Your task to perform on an android device: turn vacation reply on in the gmail app Image 0: 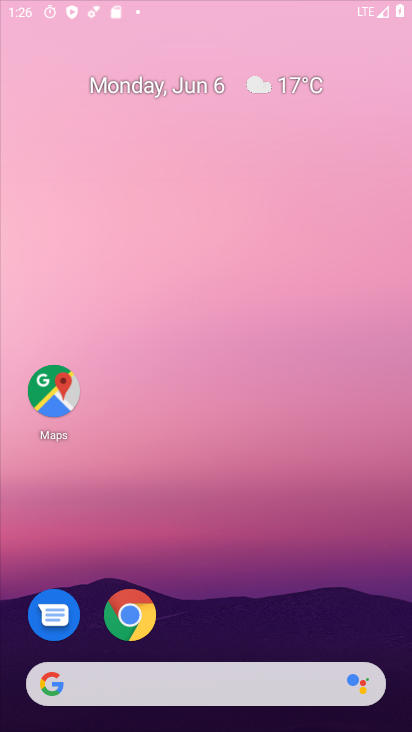
Step 0: drag from (199, 606) to (258, 201)
Your task to perform on an android device: turn vacation reply on in the gmail app Image 1: 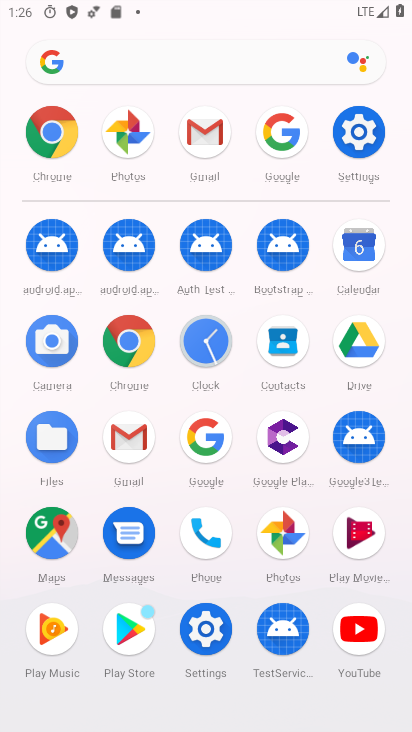
Step 1: click (120, 441)
Your task to perform on an android device: turn vacation reply on in the gmail app Image 2: 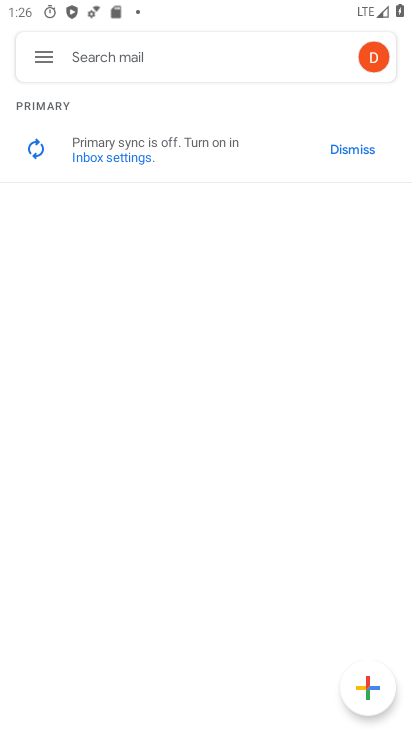
Step 2: drag from (217, 486) to (221, 231)
Your task to perform on an android device: turn vacation reply on in the gmail app Image 3: 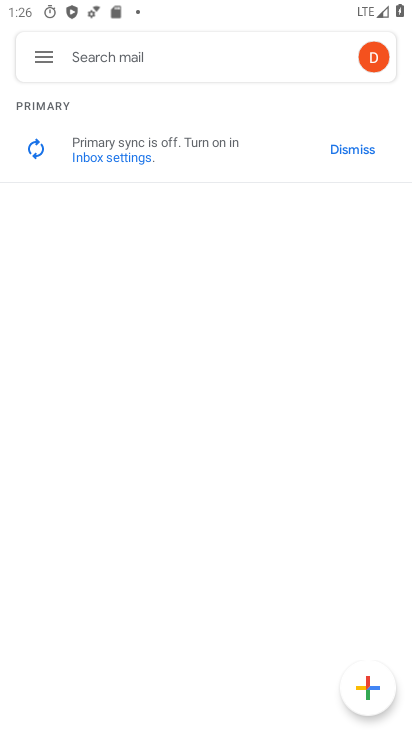
Step 3: click (33, 55)
Your task to perform on an android device: turn vacation reply on in the gmail app Image 4: 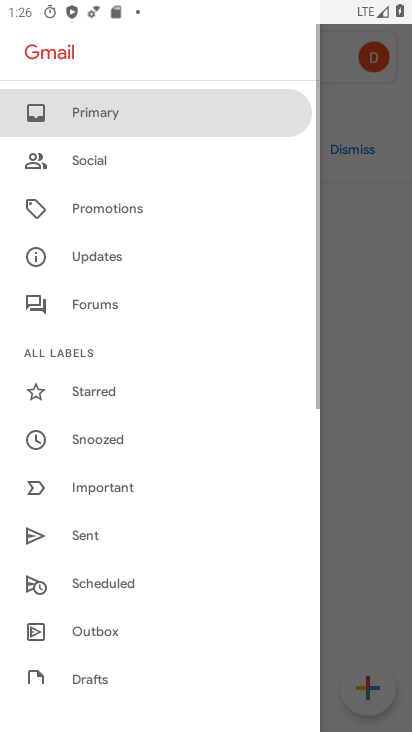
Step 4: drag from (168, 593) to (194, 175)
Your task to perform on an android device: turn vacation reply on in the gmail app Image 5: 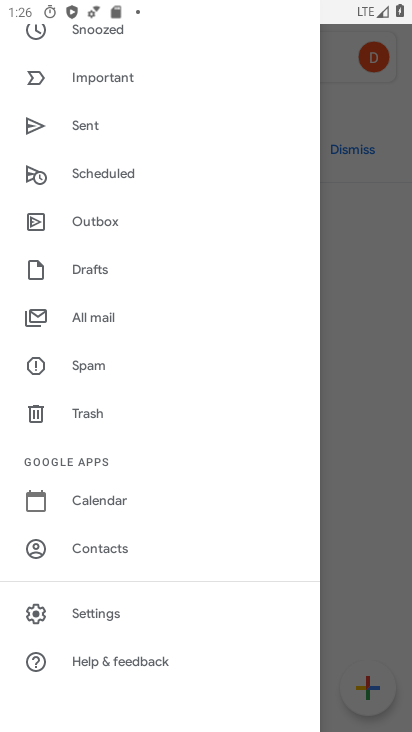
Step 5: click (115, 607)
Your task to perform on an android device: turn vacation reply on in the gmail app Image 6: 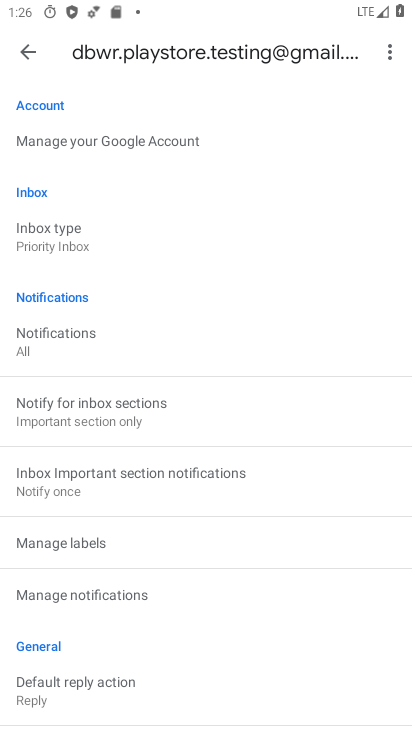
Step 6: drag from (172, 646) to (285, 227)
Your task to perform on an android device: turn vacation reply on in the gmail app Image 7: 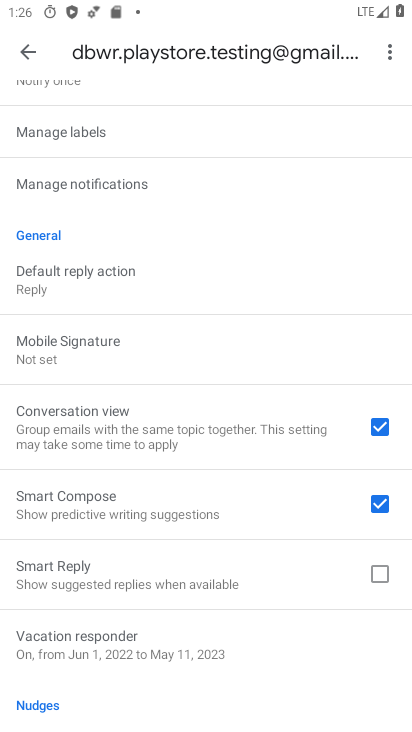
Step 7: click (153, 645)
Your task to perform on an android device: turn vacation reply on in the gmail app Image 8: 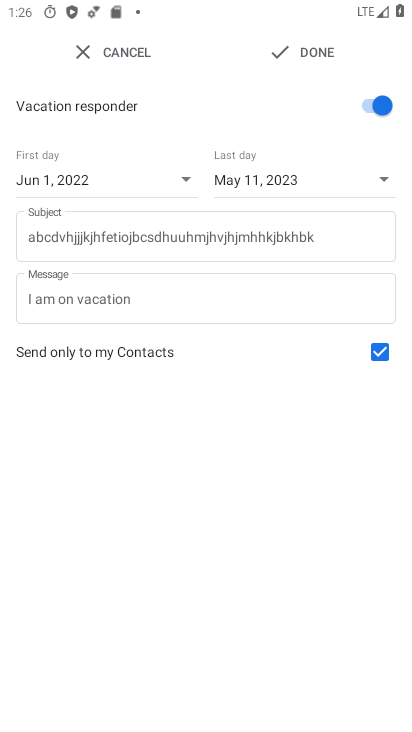
Step 8: click (271, 41)
Your task to perform on an android device: turn vacation reply on in the gmail app Image 9: 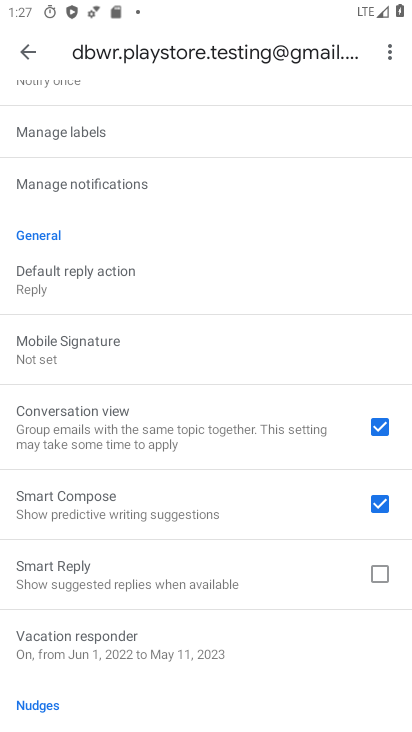
Step 9: drag from (150, 655) to (254, 278)
Your task to perform on an android device: turn vacation reply on in the gmail app Image 10: 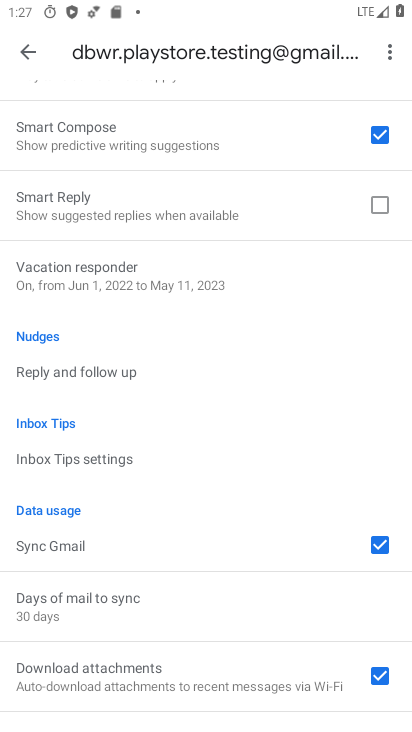
Step 10: drag from (174, 519) to (287, 294)
Your task to perform on an android device: turn vacation reply on in the gmail app Image 11: 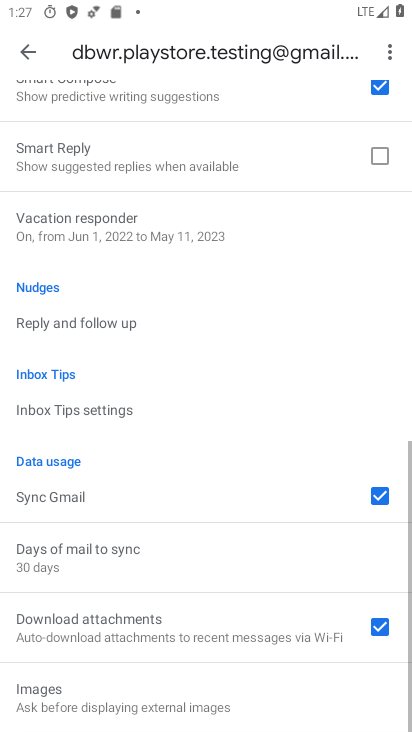
Step 11: drag from (272, 260) to (247, 728)
Your task to perform on an android device: turn vacation reply on in the gmail app Image 12: 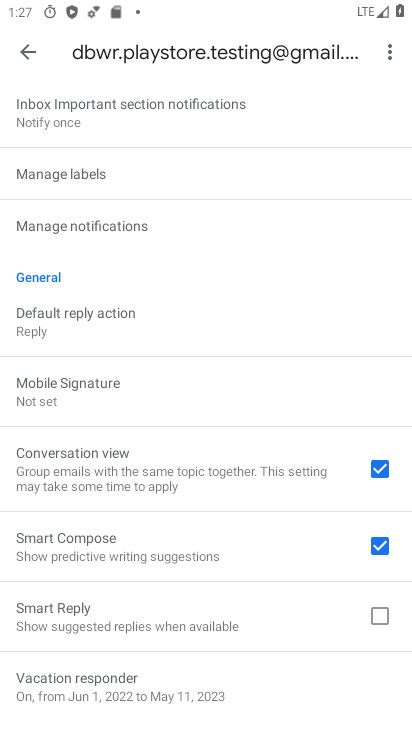
Step 12: drag from (245, 610) to (297, 323)
Your task to perform on an android device: turn vacation reply on in the gmail app Image 13: 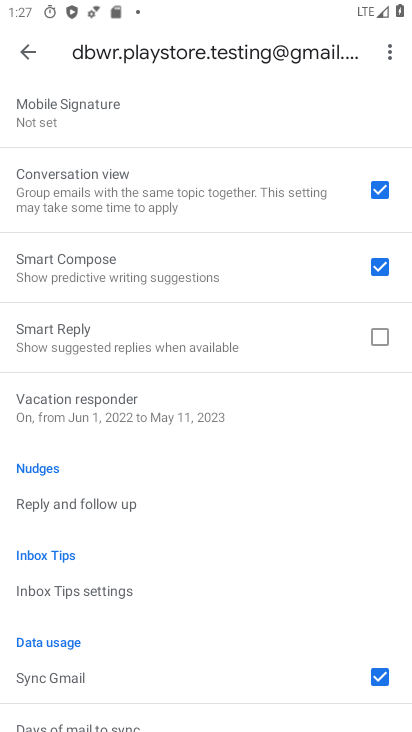
Step 13: click (151, 396)
Your task to perform on an android device: turn vacation reply on in the gmail app Image 14: 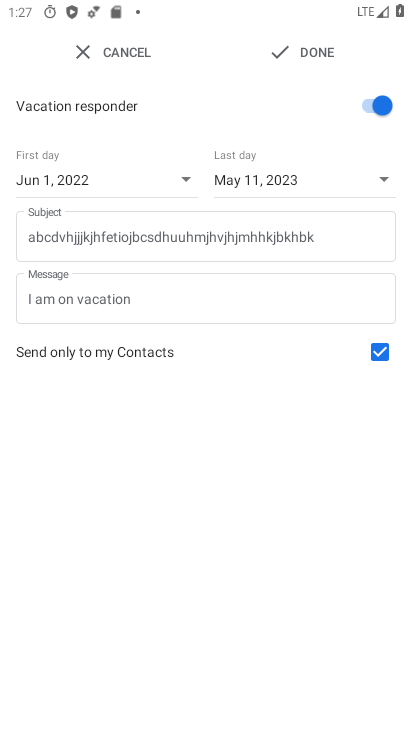
Step 14: click (288, 53)
Your task to perform on an android device: turn vacation reply on in the gmail app Image 15: 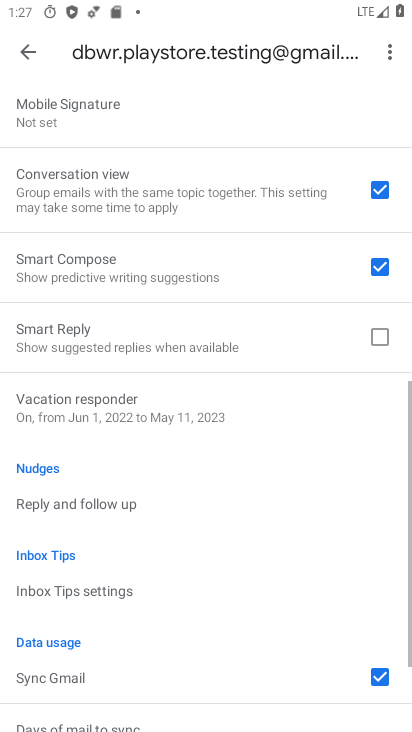
Step 15: task complete